Your task to perform on an android device: turn off smart reply in the gmail app Image 0: 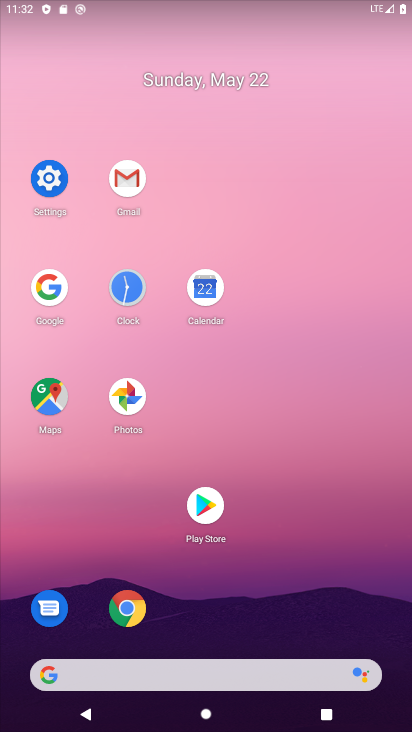
Step 0: click (105, 183)
Your task to perform on an android device: turn off smart reply in the gmail app Image 1: 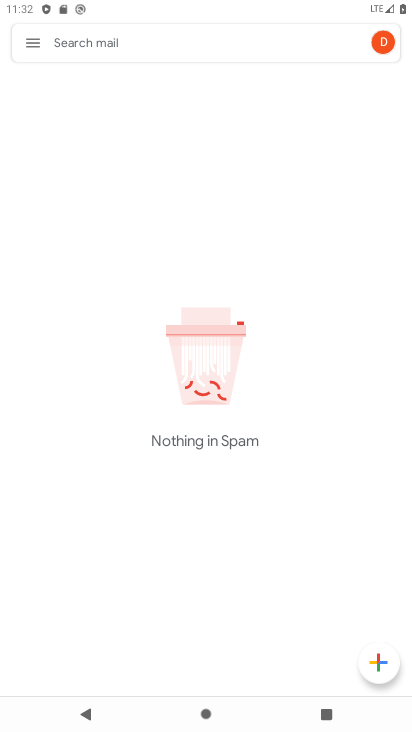
Step 1: click (42, 59)
Your task to perform on an android device: turn off smart reply in the gmail app Image 2: 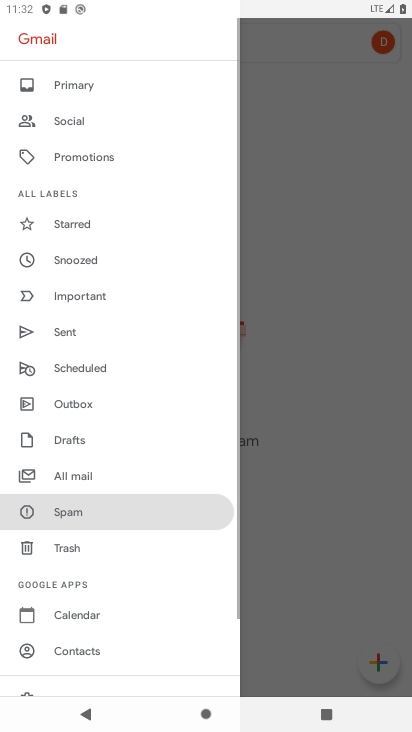
Step 2: drag from (142, 596) to (145, 136)
Your task to perform on an android device: turn off smart reply in the gmail app Image 3: 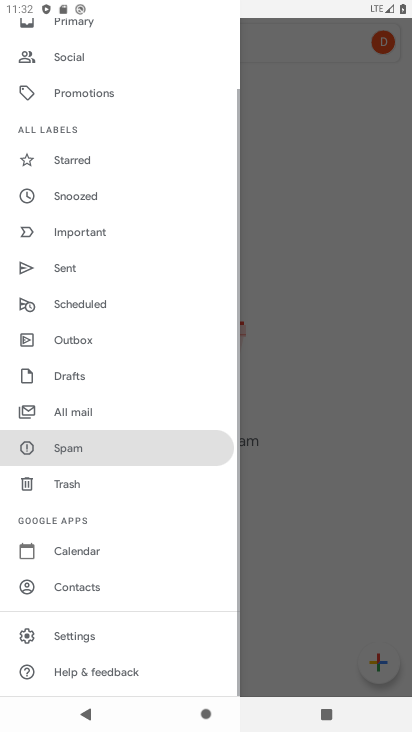
Step 3: click (81, 644)
Your task to perform on an android device: turn off smart reply in the gmail app Image 4: 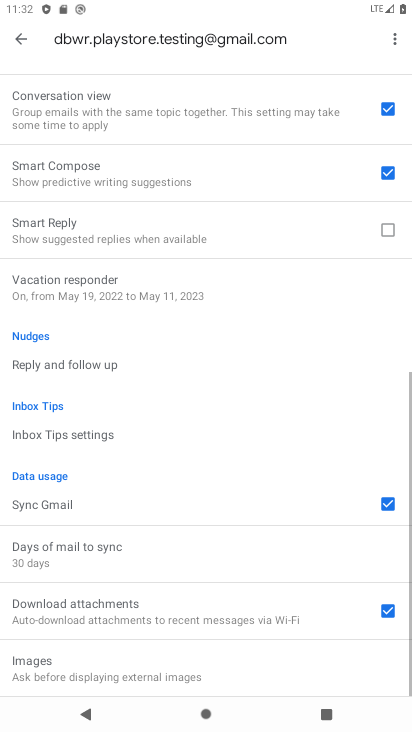
Step 4: task complete